Your task to perform on an android device: Open sound settings Image 0: 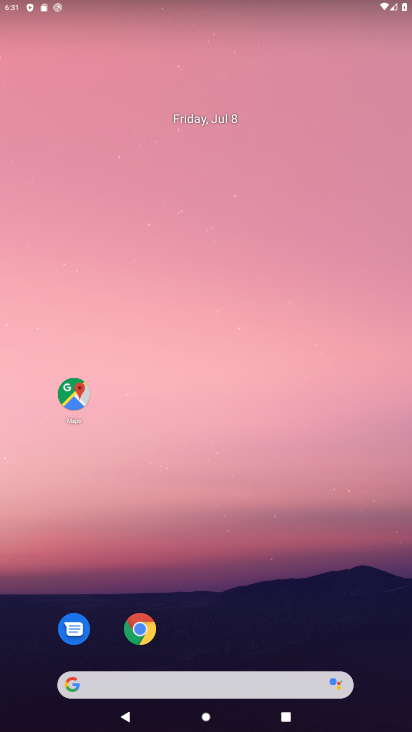
Step 0: press home button
Your task to perform on an android device: Open sound settings Image 1: 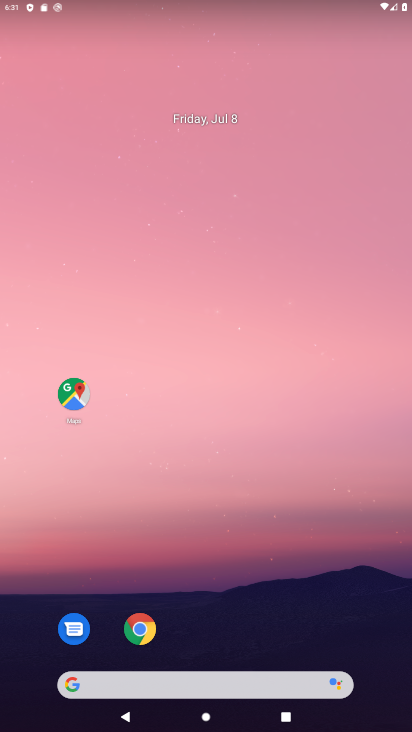
Step 1: drag from (342, 643) to (335, 114)
Your task to perform on an android device: Open sound settings Image 2: 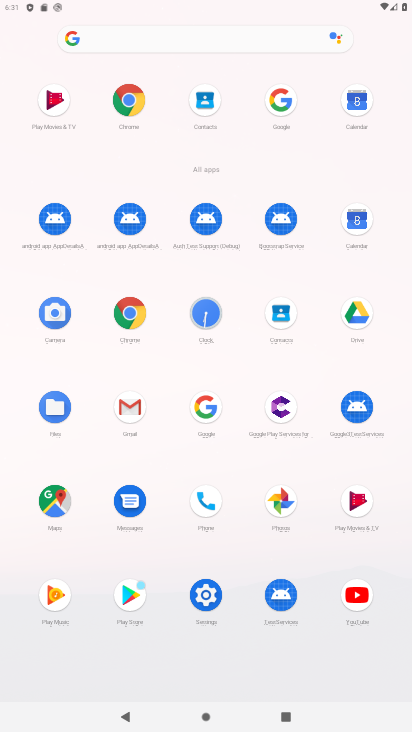
Step 2: click (210, 595)
Your task to perform on an android device: Open sound settings Image 3: 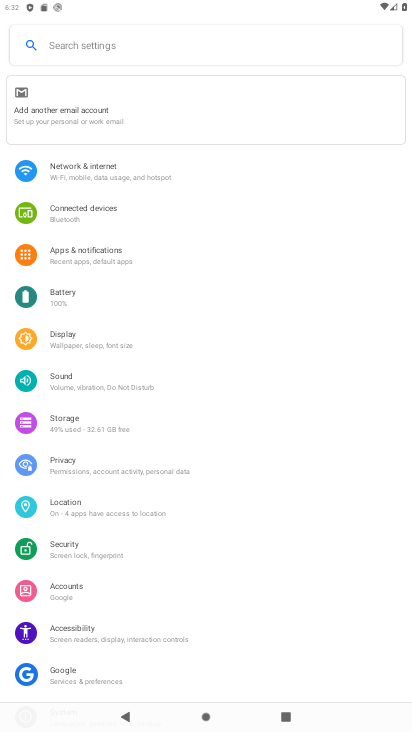
Step 3: click (74, 391)
Your task to perform on an android device: Open sound settings Image 4: 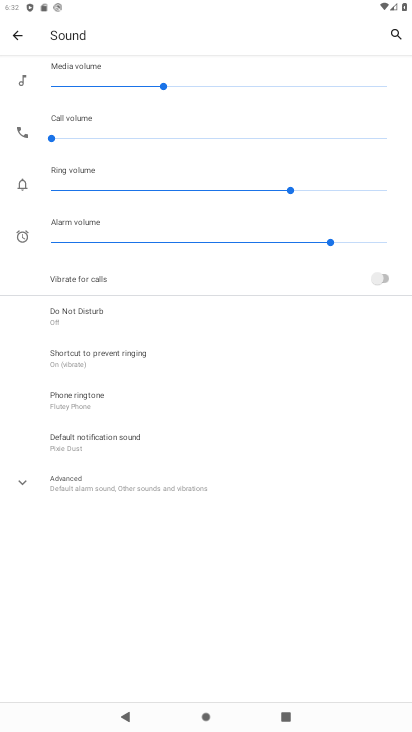
Step 4: task complete